Your task to perform on an android device: Open internet settings Image 0: 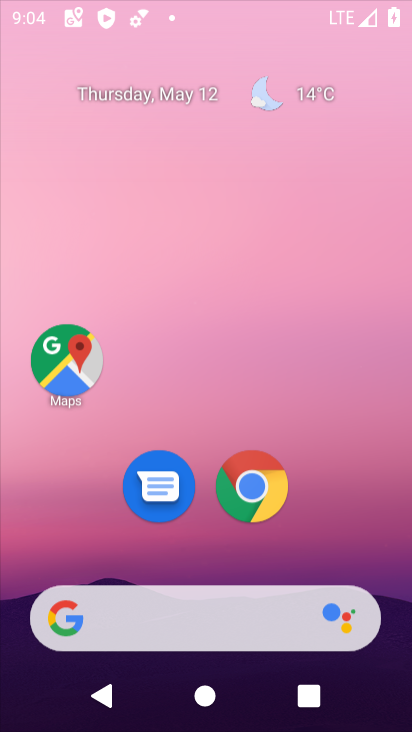
Step 0: press home button
Your task to perform on an android device: Open internet settings Image 1: 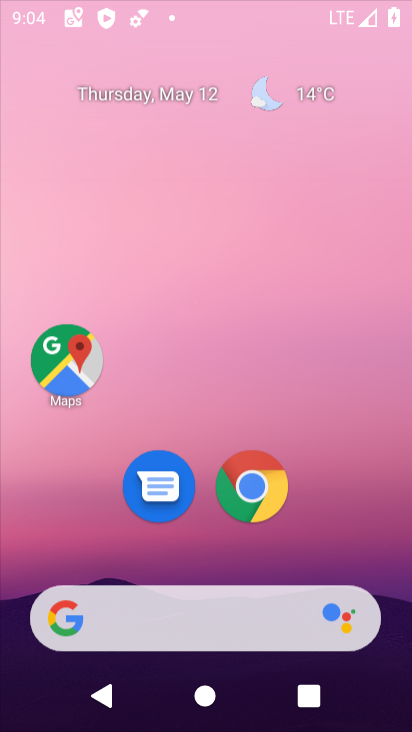
Step 1: click (165, 634)
Your task to perform on an android device: Open internet settings Image 2: 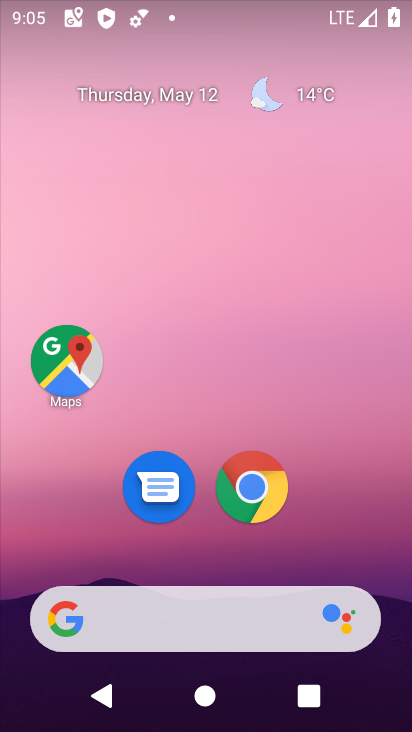
Step 2: drag from (25, 636) to (255, 187)
Your task to perform on an android device: Open internet settings Image 3: 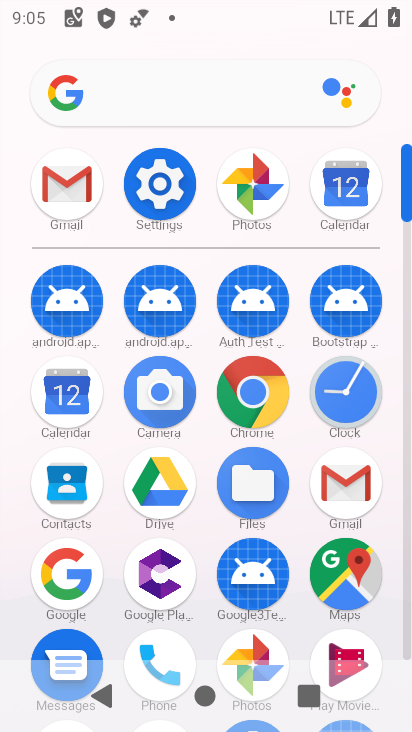
Step 3: click (161, 183)
Your task to perform on an android device: Open internet settings Image 4: 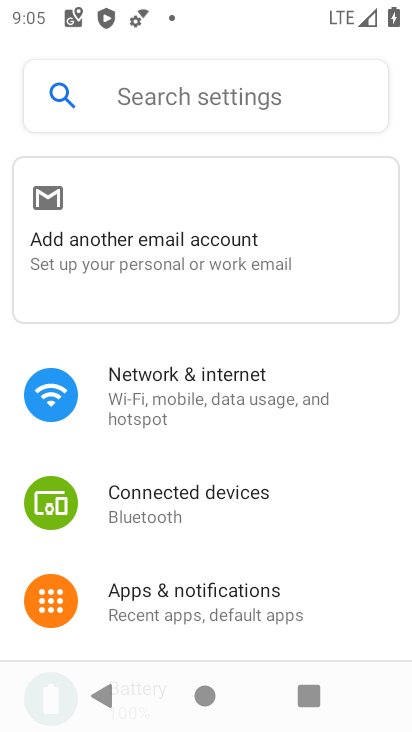
Step 4: click (196, 406)
Your task to perform on an android device: Open internet settings Image 5: 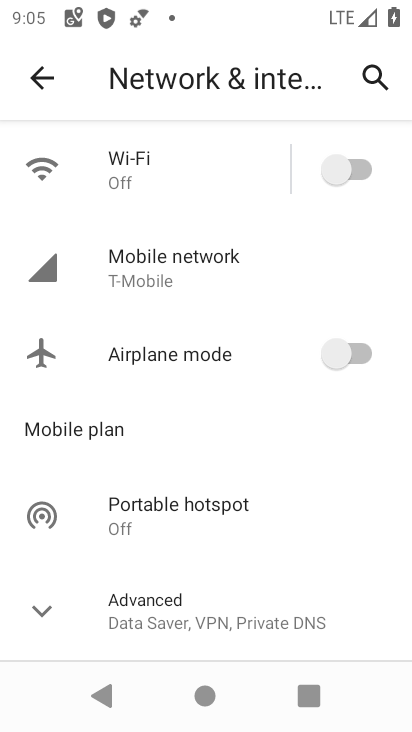
Step 5: click (165, 264)
Your task to perform on an android device: Open internet settings Image 6: 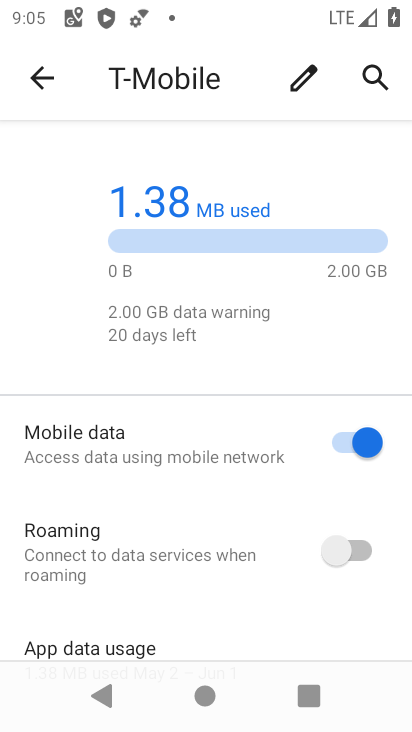
Step 6: task complete